Your task to perform on an android device: open the mobile data screen to see how much data has been used Image 0: 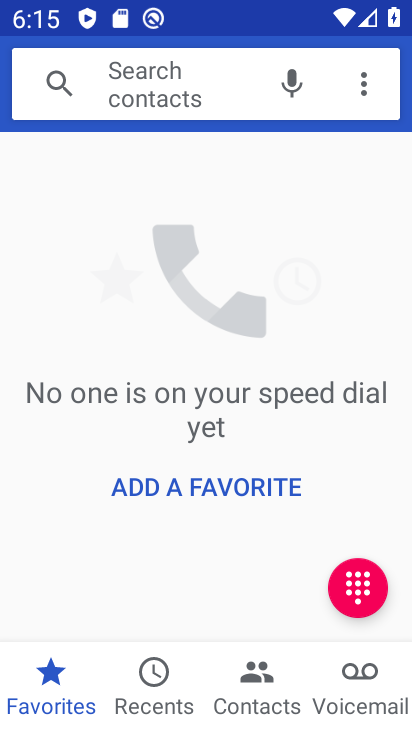
Step 0: press home button
Your task to perform on an android device: open the mobile data screen to see how much data has been used Image 1: 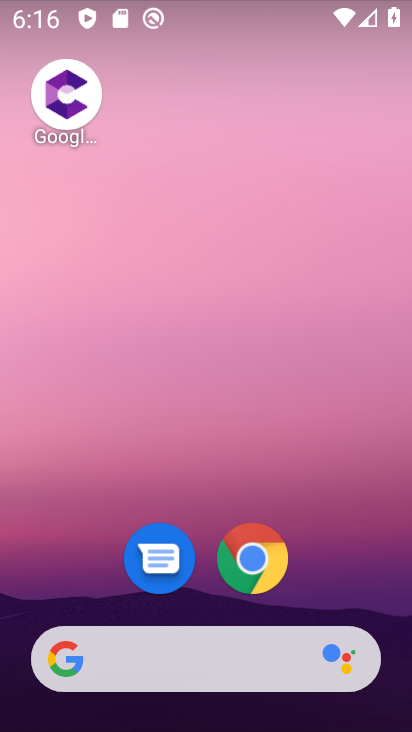
Step 1: drag from (386, 580) to (320, 59)
Your task to perform on an android device: open the mobile data screen to see how much data has been used Image 2: 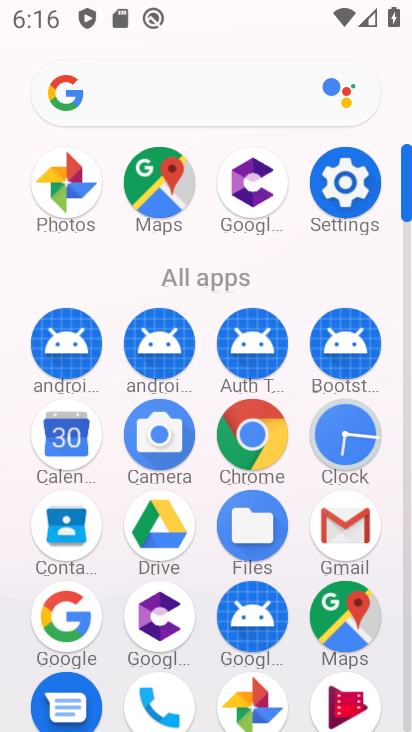
Step 2: drag from (234, 0) to (176, 488)
Your task to perform on an android device: open the mobile data screen to see how much data has been used Image 3: 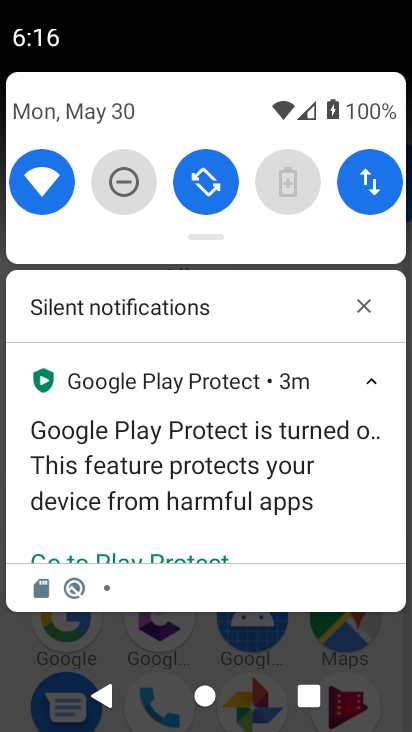
Step 3: click (381, 199)
Your task to perform on an android device: open the mobile data screen to see how much data has been used Image 4: 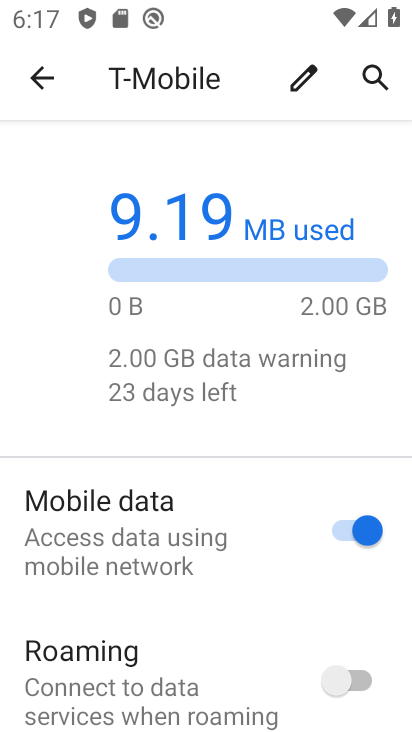
Step 4: task complete